Your task to perform on an android device: Open location settings Image 0: 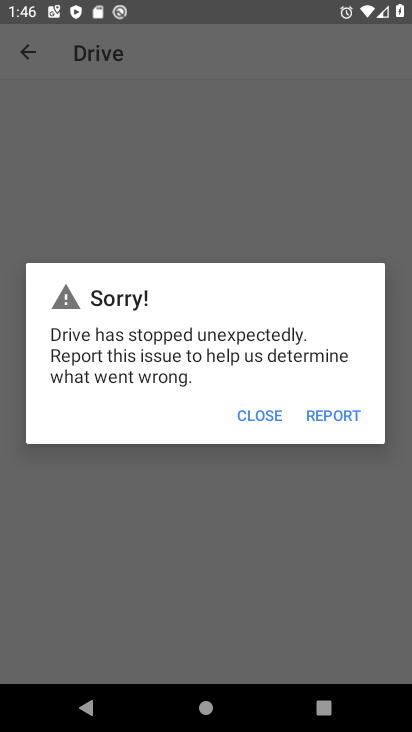
Step 0: press home button
Your task to perform on an android device: Open location settings Image 1: 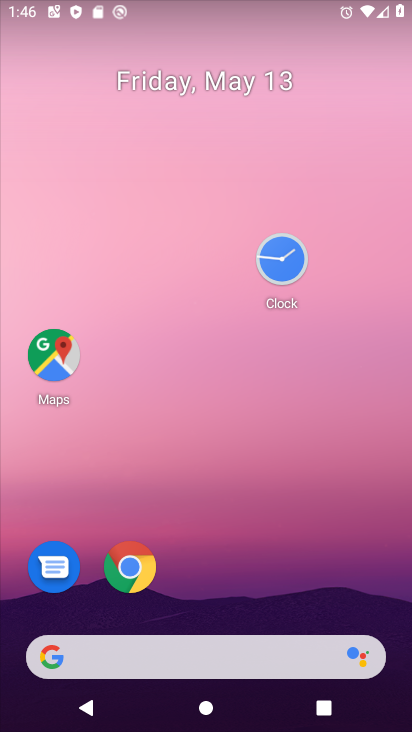
Step 1: drag from (274, 525) to (282, 275)
Your task to perform on an android device: Open location settings Image 2: 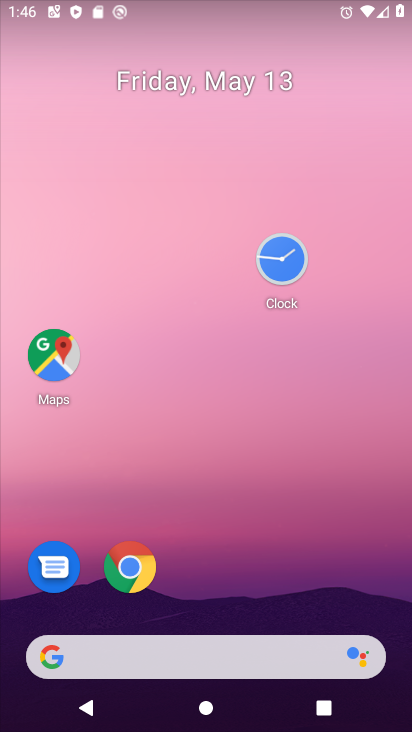
Step 2: drag from (287, 569) to (294, 204)
Your task to perform on an android device: Open location settings Image 3: 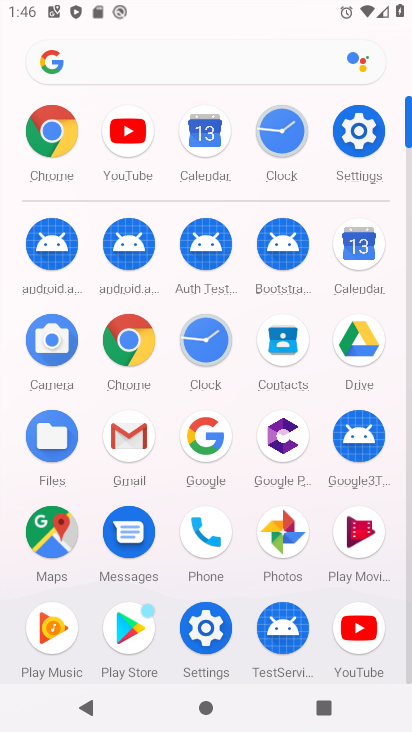
Step 3: click (356, 133)
Your task to perform on an android device: Open location settings Image 4: 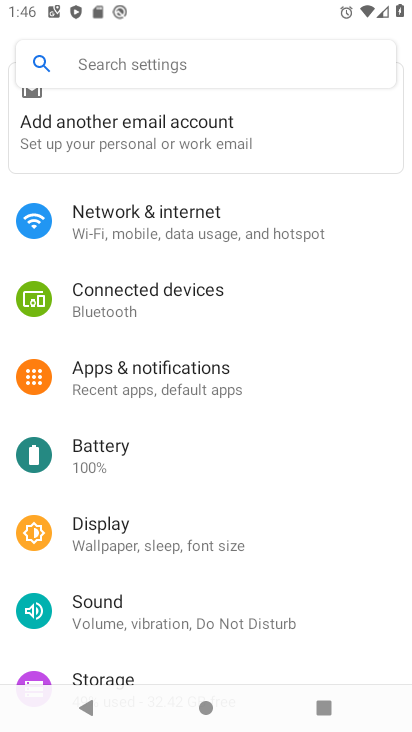
Step 4: drag from (231, 559) to (176, 16)
Your task to perform on an android device: Open location settings Image 5: 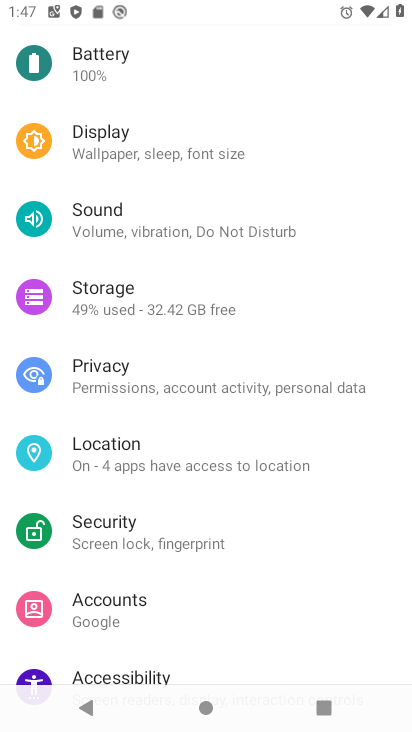
Step 5: click (211, 476)
Your task to perform on an android device: Open location settings Image 6: 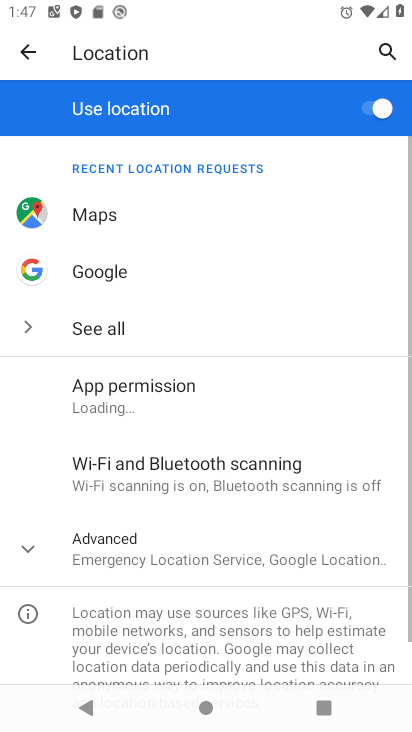
Step 6: task complete